Your task to perform on an android device: change text size in settings app Image 0: 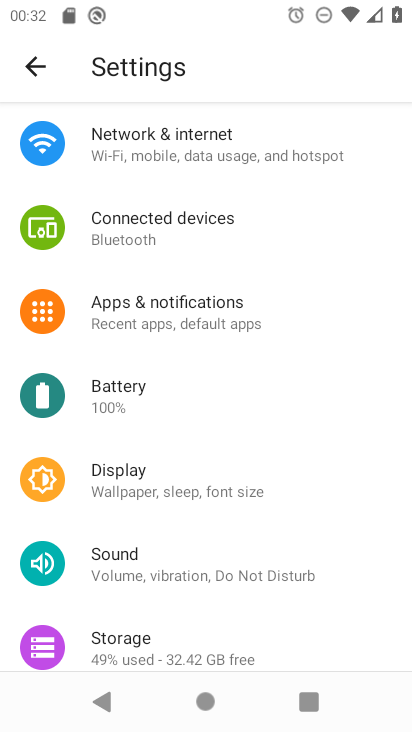
Step 0: drag from (239, 251) to (232, 482)
Your task to perform on an android device: change text size in settings app Image 1: 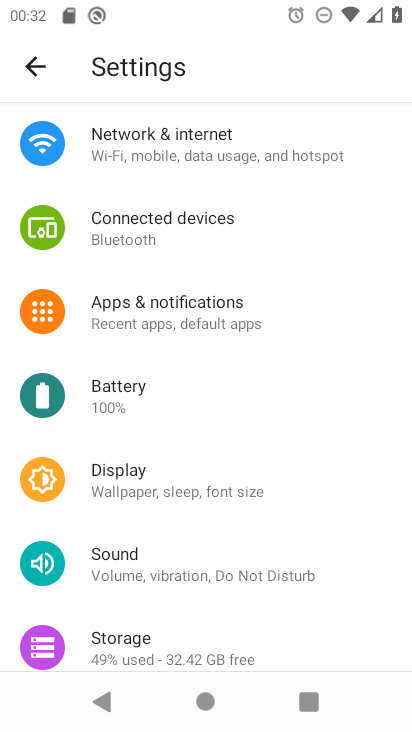
Step 1: click (144, 477)
Your task to perform on an android device: change text size in settings app Image 2: 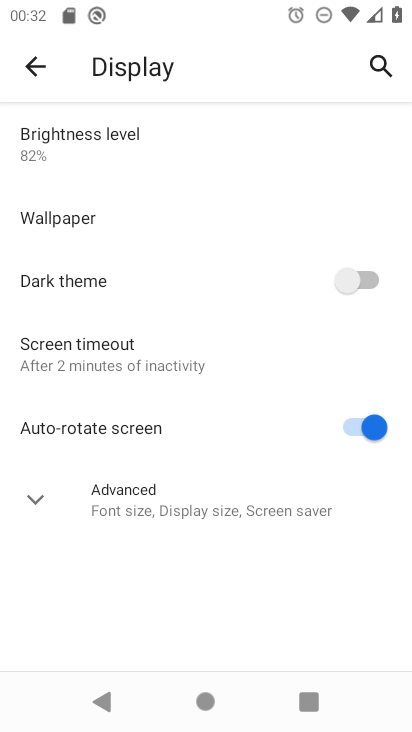
Step 2: click (103, 500)
Your task to perform on an android device: change text size in settings app Image 3: 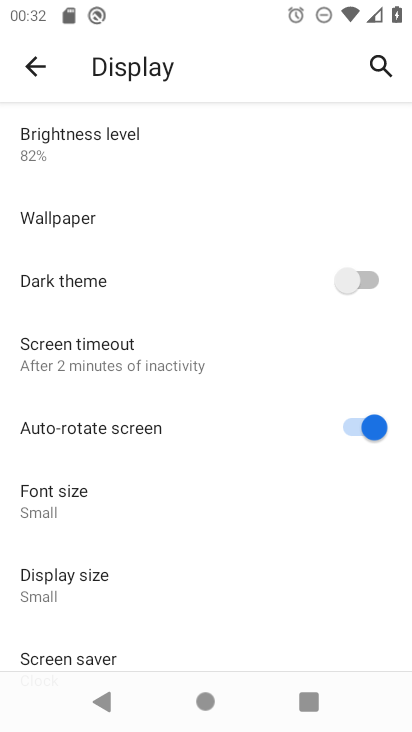
Step 3: drag from (135, 588) to (138, 412)
Your task to perform on an android device: change text size in settings app Image 4: 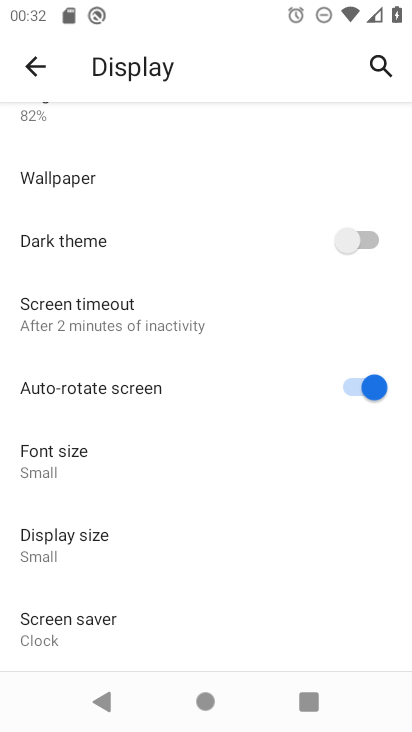
Step 4: drag from (122, 595) to (134, 419)
Your task to perform on an android device: change text size in settings app Image 5: 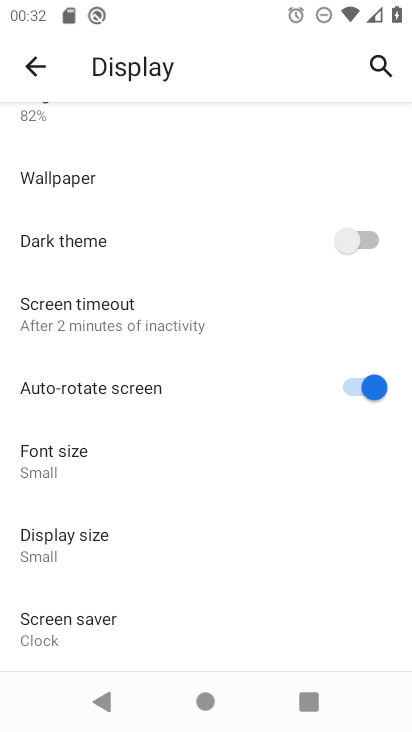
Step 5: click (85, 460)
Your task to perform on an android device: change text size in settings app Image 6: 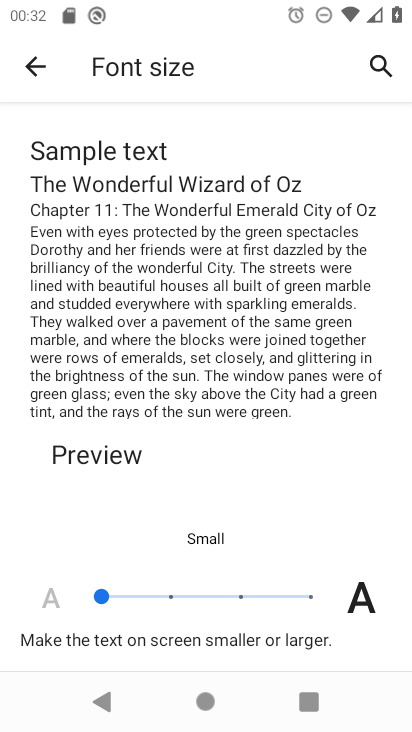
Step 6: click (163, 590)
Your task to perform on an android device: change text size in settings app Image 7: 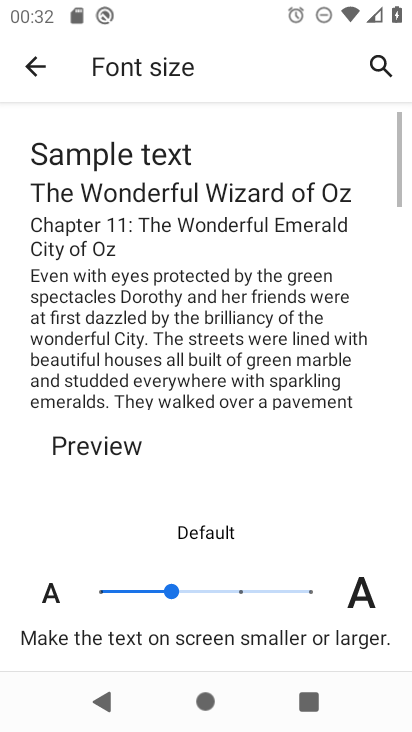
Step 7: task complete